Your task to perform on an android device: manage bookmarks in the chrome app Image 0: 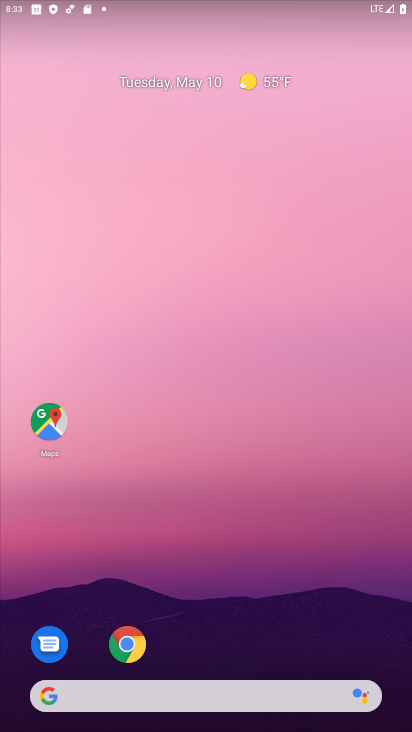
Step 0: drag from (297, 688) to (351, 224)
Your task to perform on an android device: manage bookmarks in the chrome app Image 1: 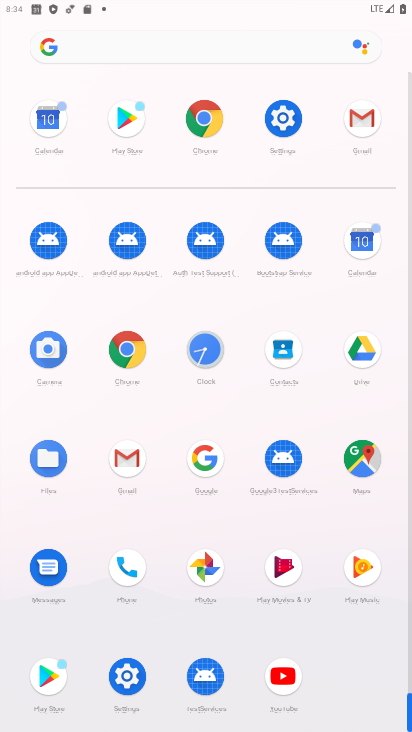
Step 1: click (134, 352)
Your task to perform on an android device: manage bookmarks in the chrome app Image 2: 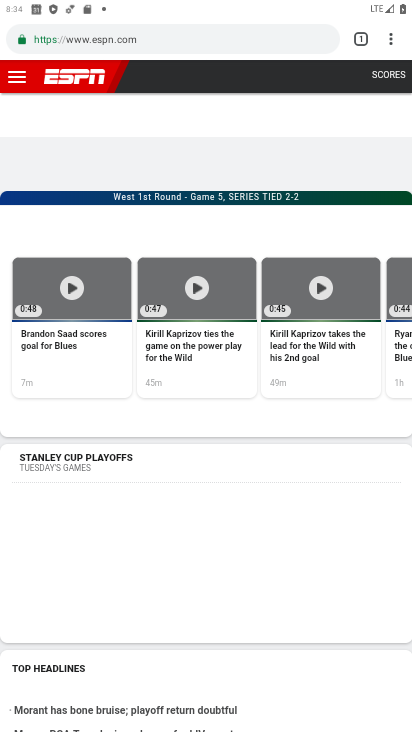
Step 2: click (386, 33)
Your task to perform on an android device: manage bookmarks in the chrome app Image 3: 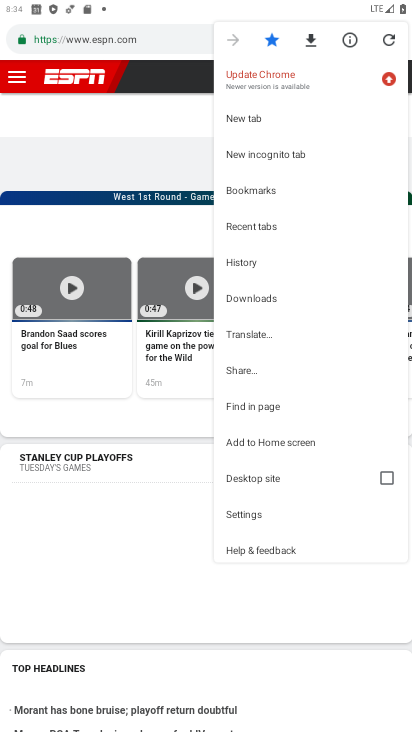
Step 3: click (276, 183)
Your task to perform on an android device: manage bookmarks in the chrome app Image 4: 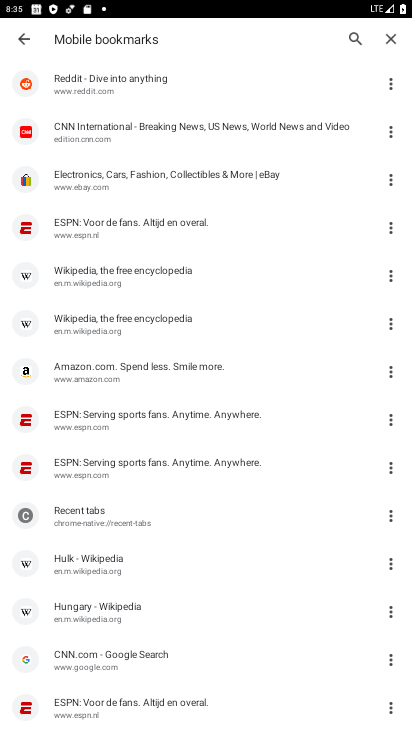
Step 4: task complete